Your task to perform on an android device: Add "dell xps" to the cart on newegg.com, then select checkout. Image 0: 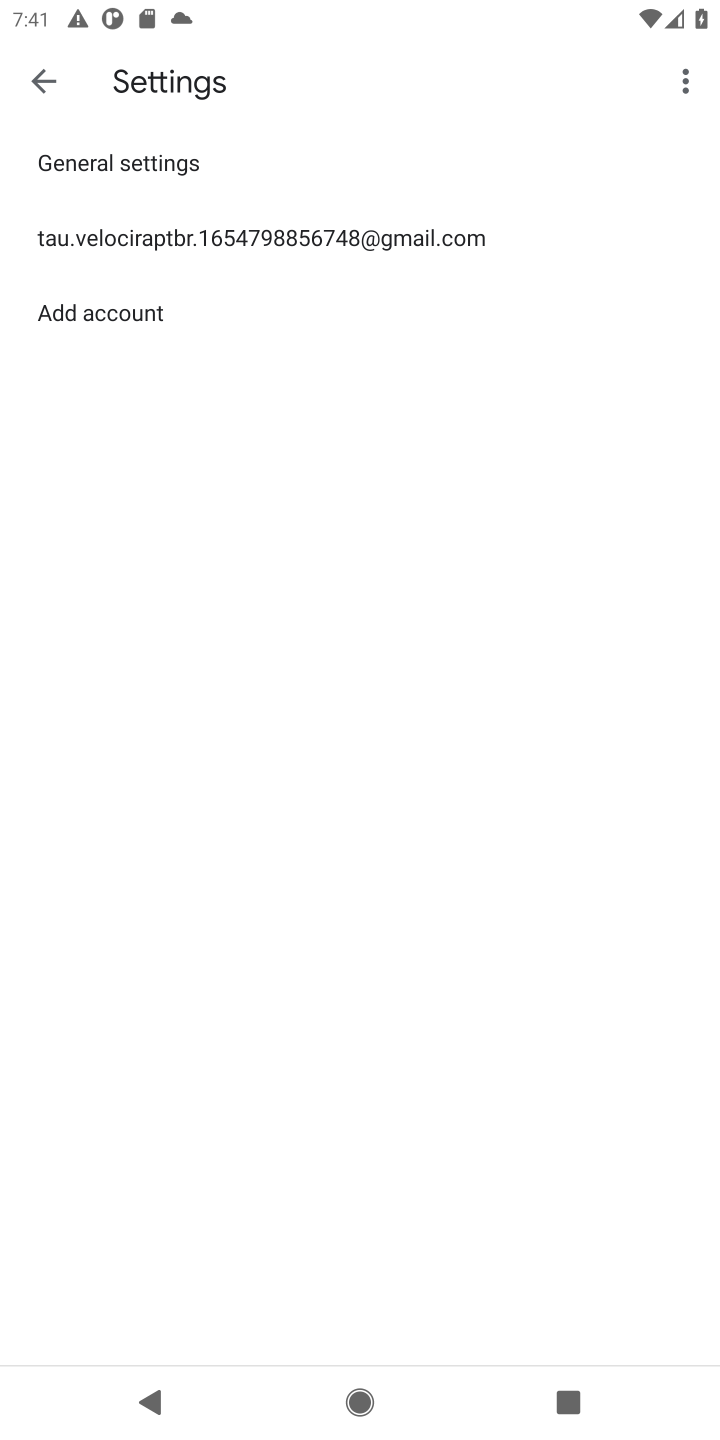
Step 0: press home button
Your task to perform on an android device: Add "dell xps" to the cart on newegg.com, then select checkout. Image 1: 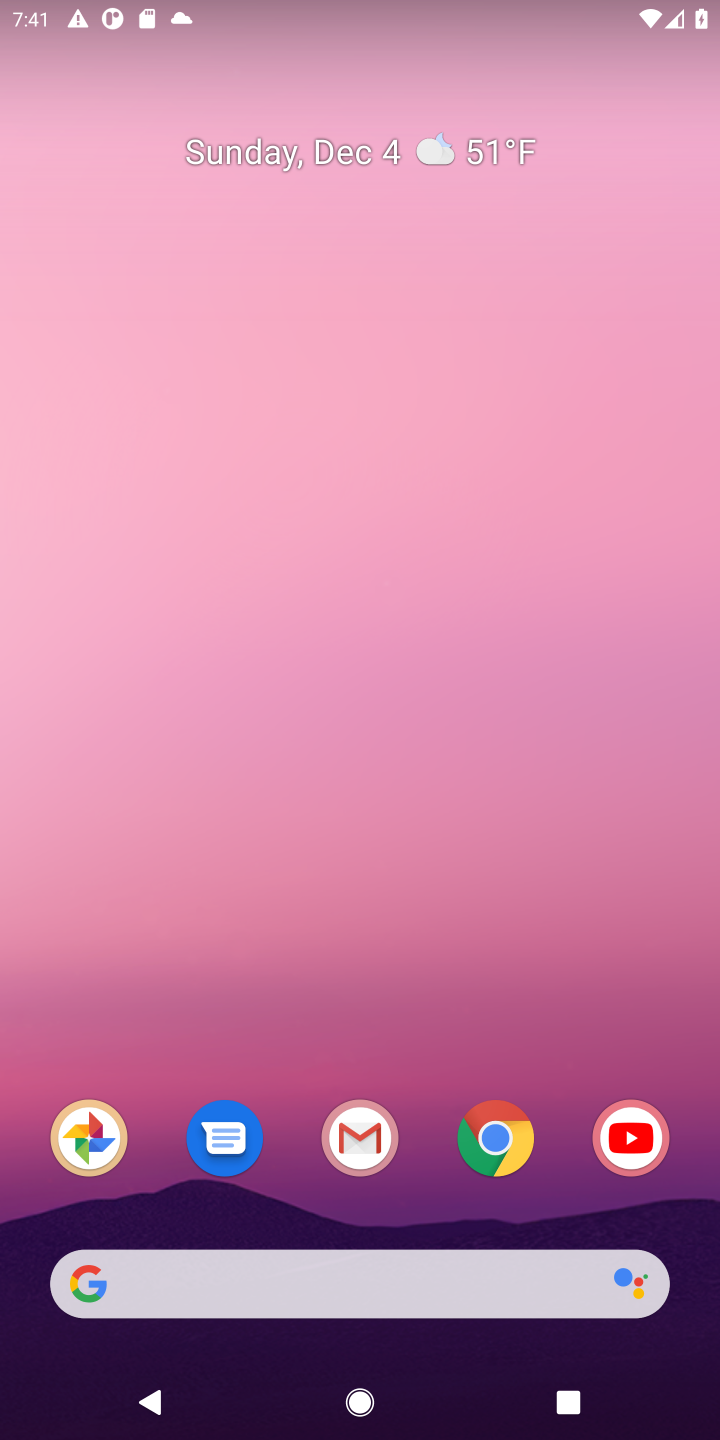
Step 1: click (514, 1123)
Your task to perform on an android device: Add "dell xps" to the cart on newegg.com, then select checkout. Image 2: 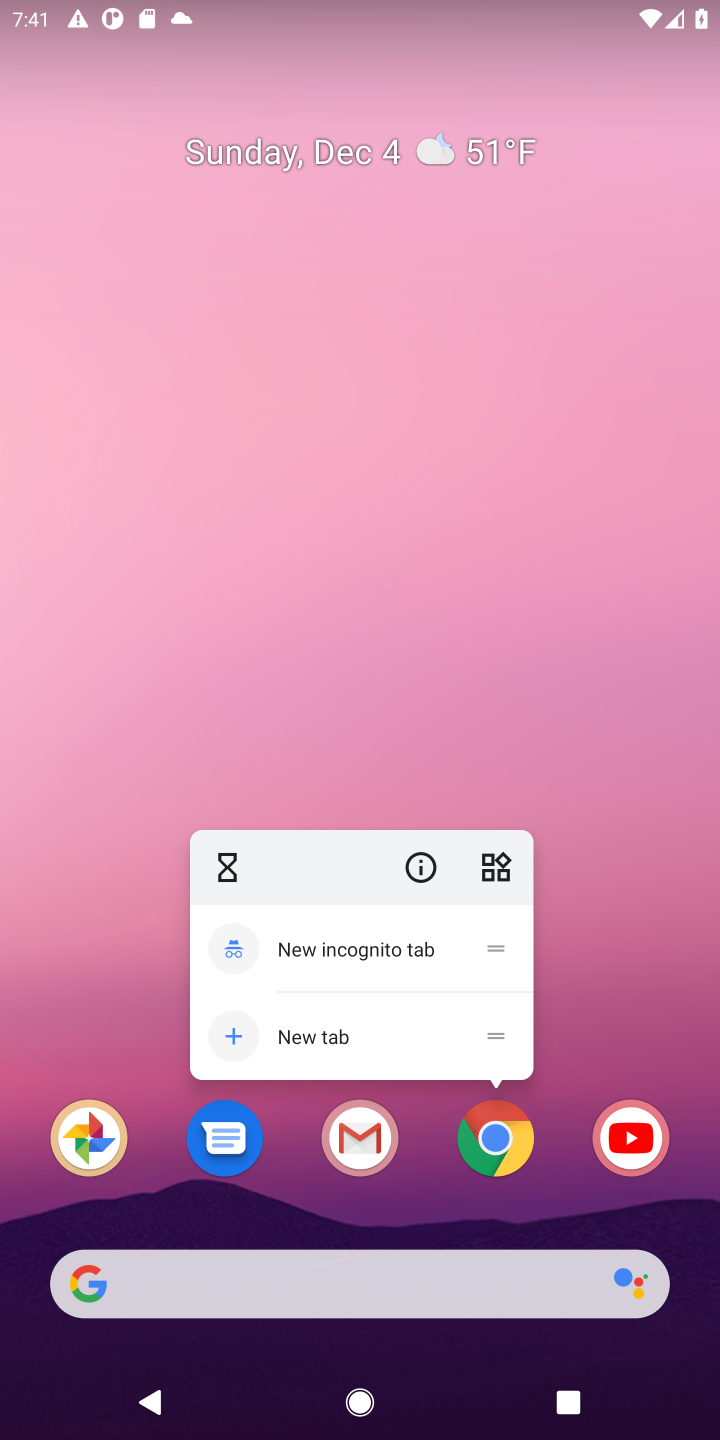
Step 2: click (481, 1154)
Your task to perform on an android device: Add "dell xps" to the cart on newegg.com, then select checkout. Image 3: 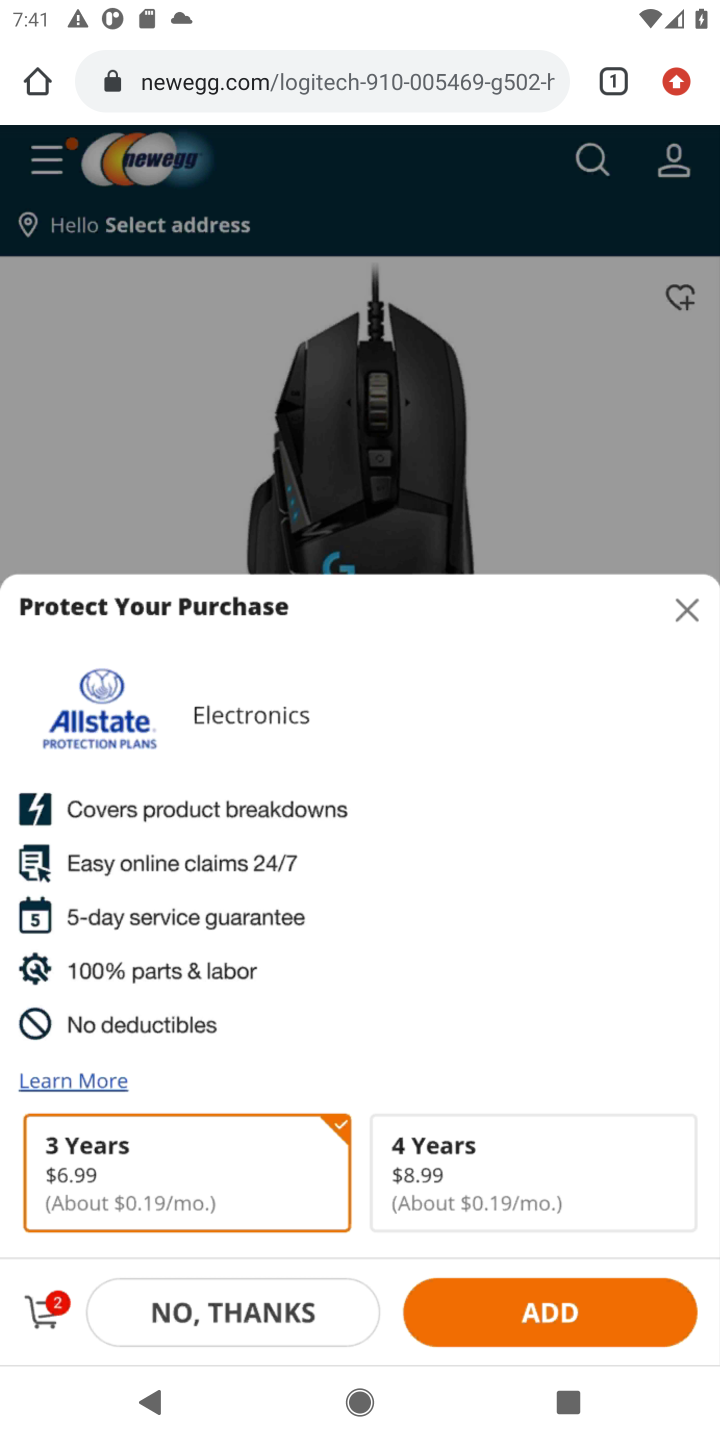
Step 3: click (687, 605)
Your task to perform on an android device: Add "dell xps" to the cart on newegg.com, then select checkout. Image 4: 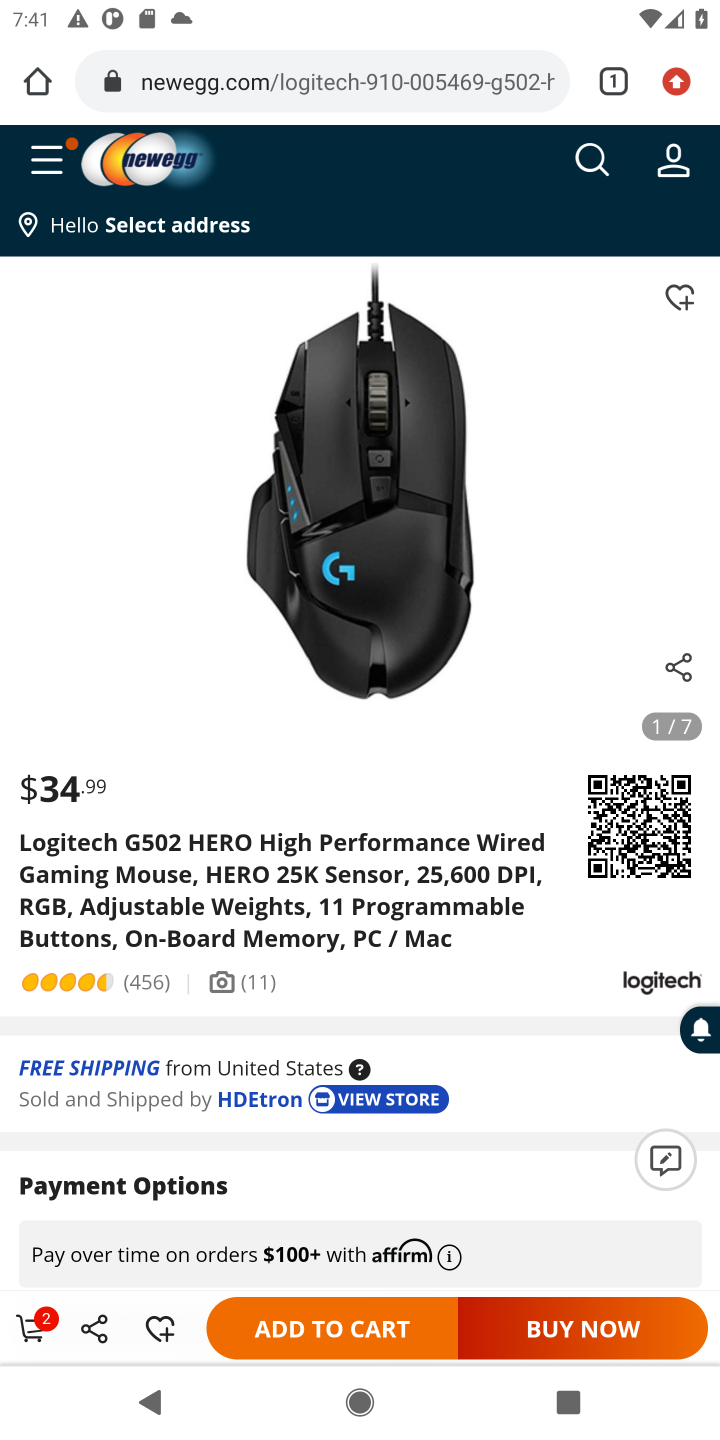
Step 4: click (604, 168)
Your task to perform on an android device: Add "dell xps" to the cart on newegg.com, then select checkout. Image 5: 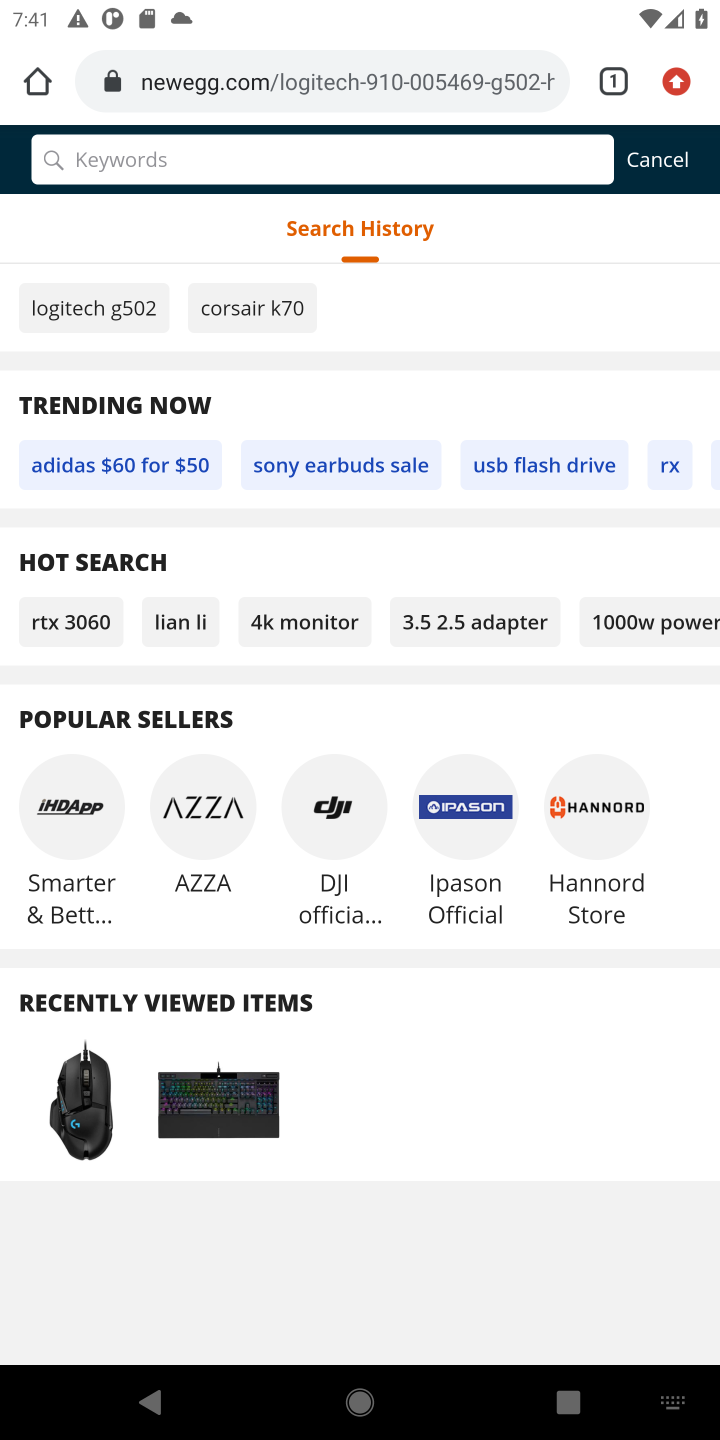
Step 5: type "dell xps"
Your task to perform on an android device: Add "dell xps" to the cart on newegg.com, then select checkout. Image 6: 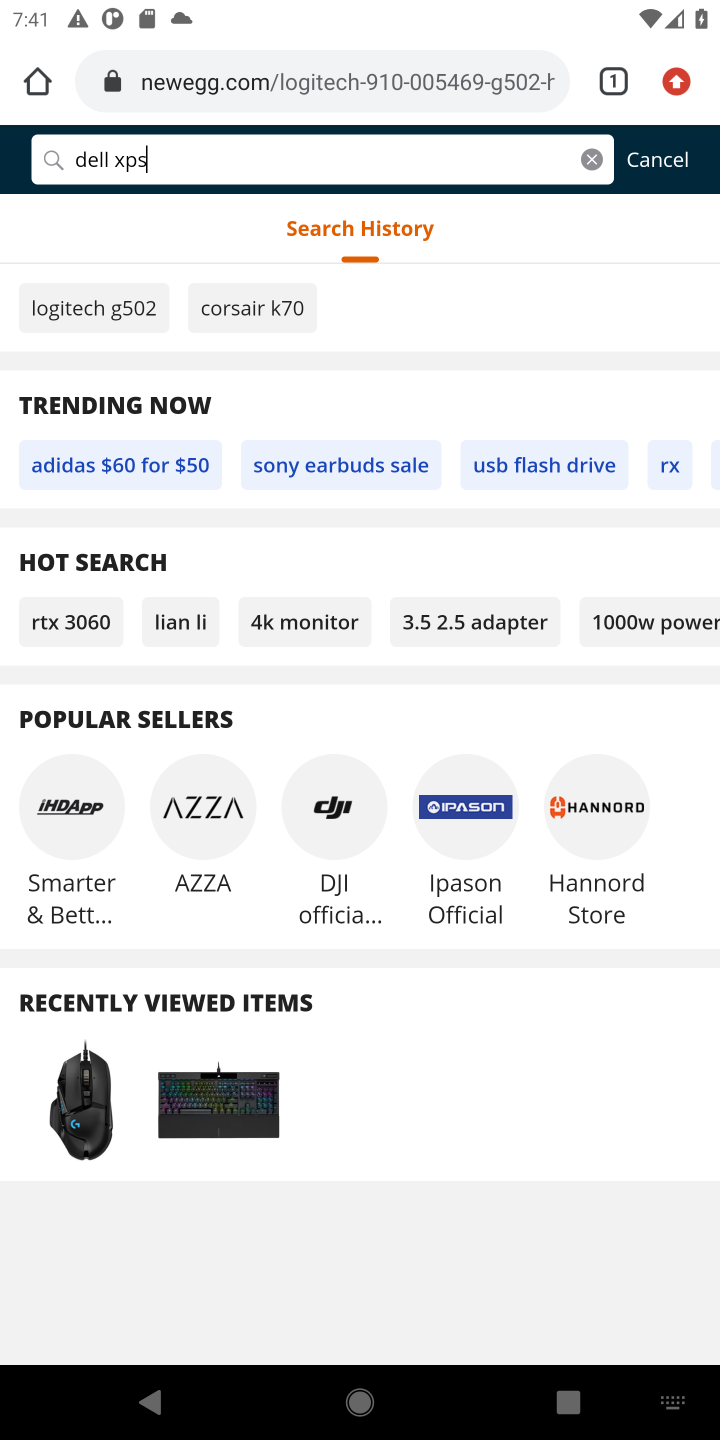
Step 6: press enter
Your task to perform on an android device: Add "dell xps" to the cart on newegg.com, then select checkout. Image 7: 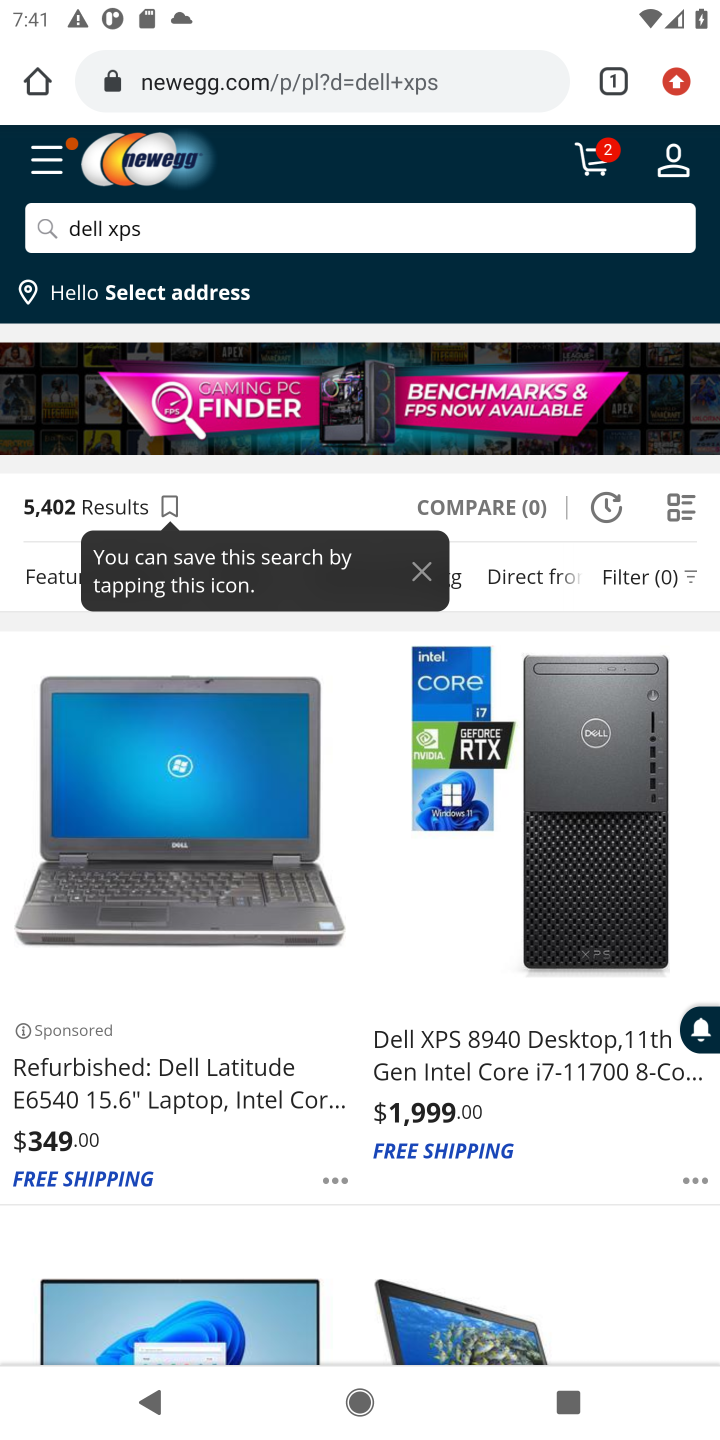
Step 7: click (563, 809)
Your task to perform on an android device: Add "dell xps" to the cart on newegg.com, then select checkout. Image 8: 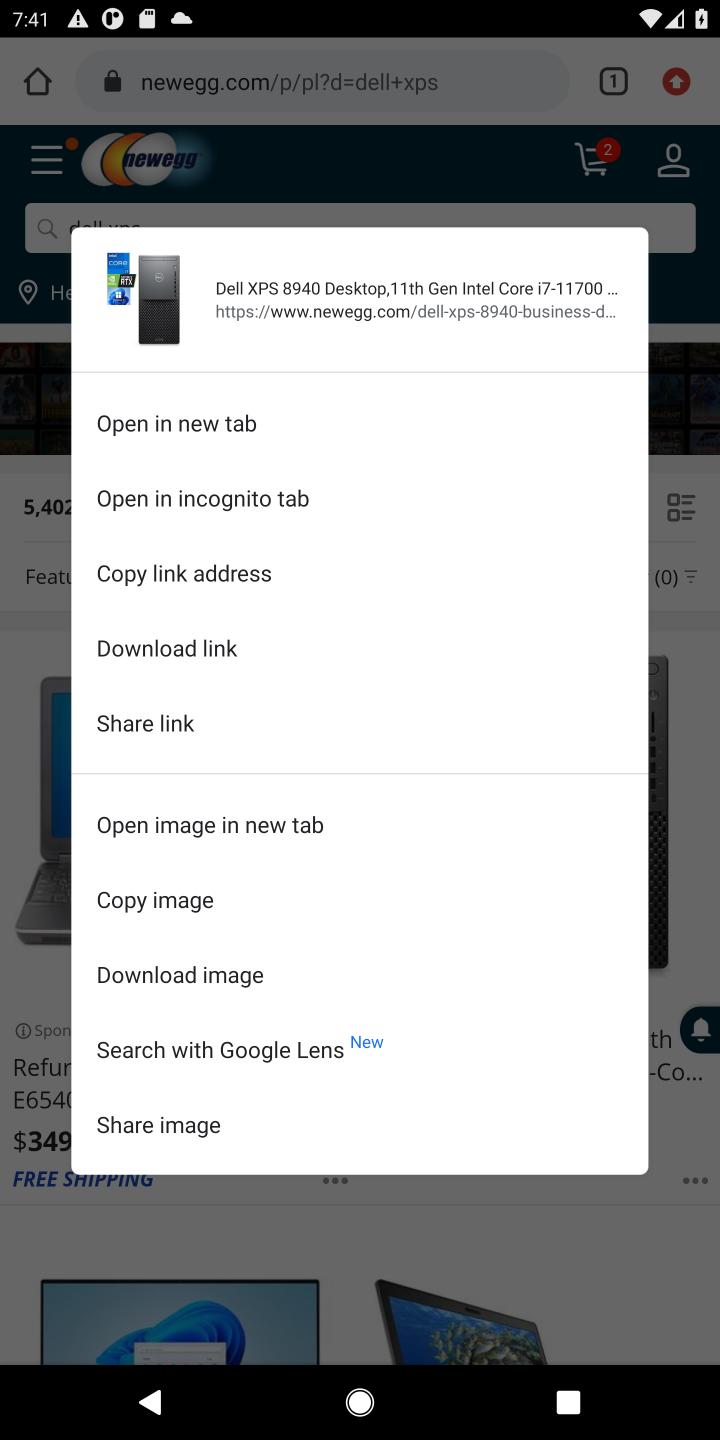
Step 8: click (686, 711)
Your task to perform on an android device: Add "dell xps" to the cart on newegg.com, then select checkout. Image 9: 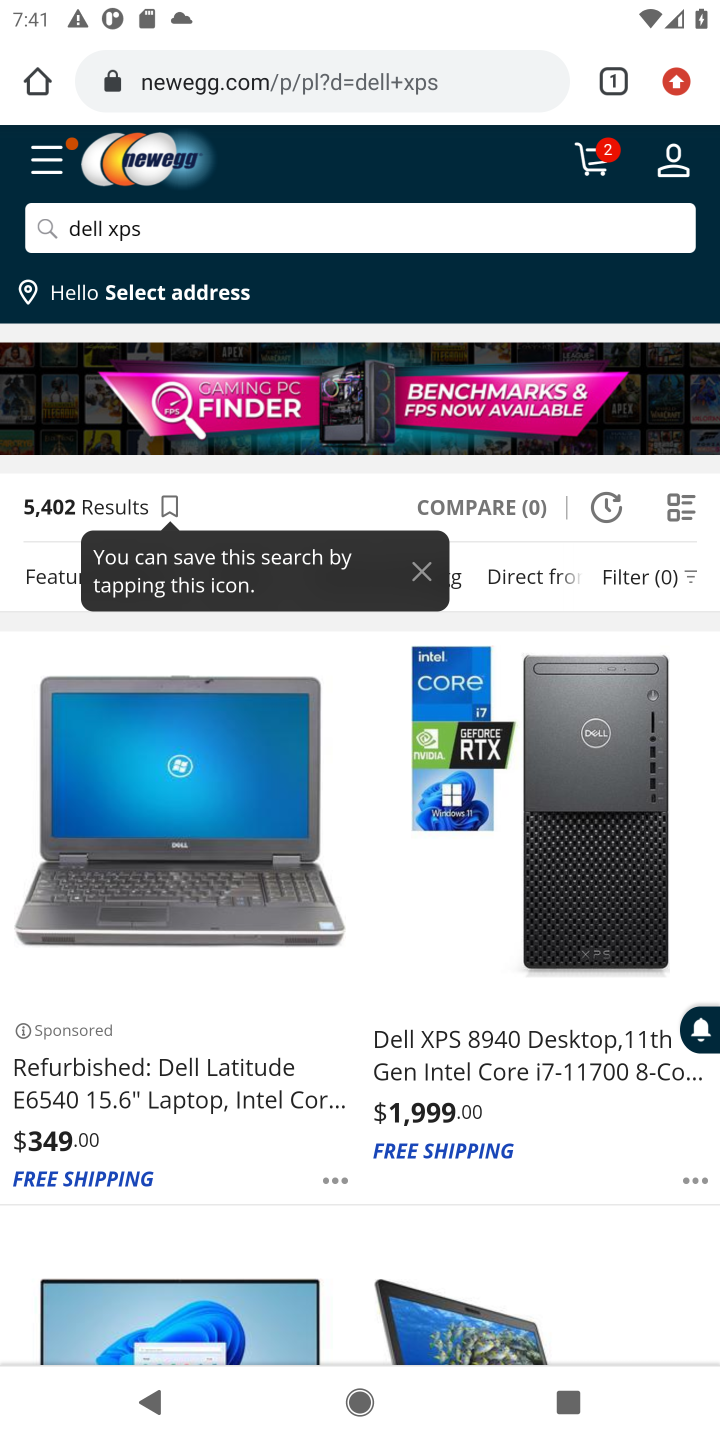
Step 9: click (531, 1041)
Your task to perform on an android device: Add "dell xps" to the cart on newegg.com, then select checkout. Image 10: 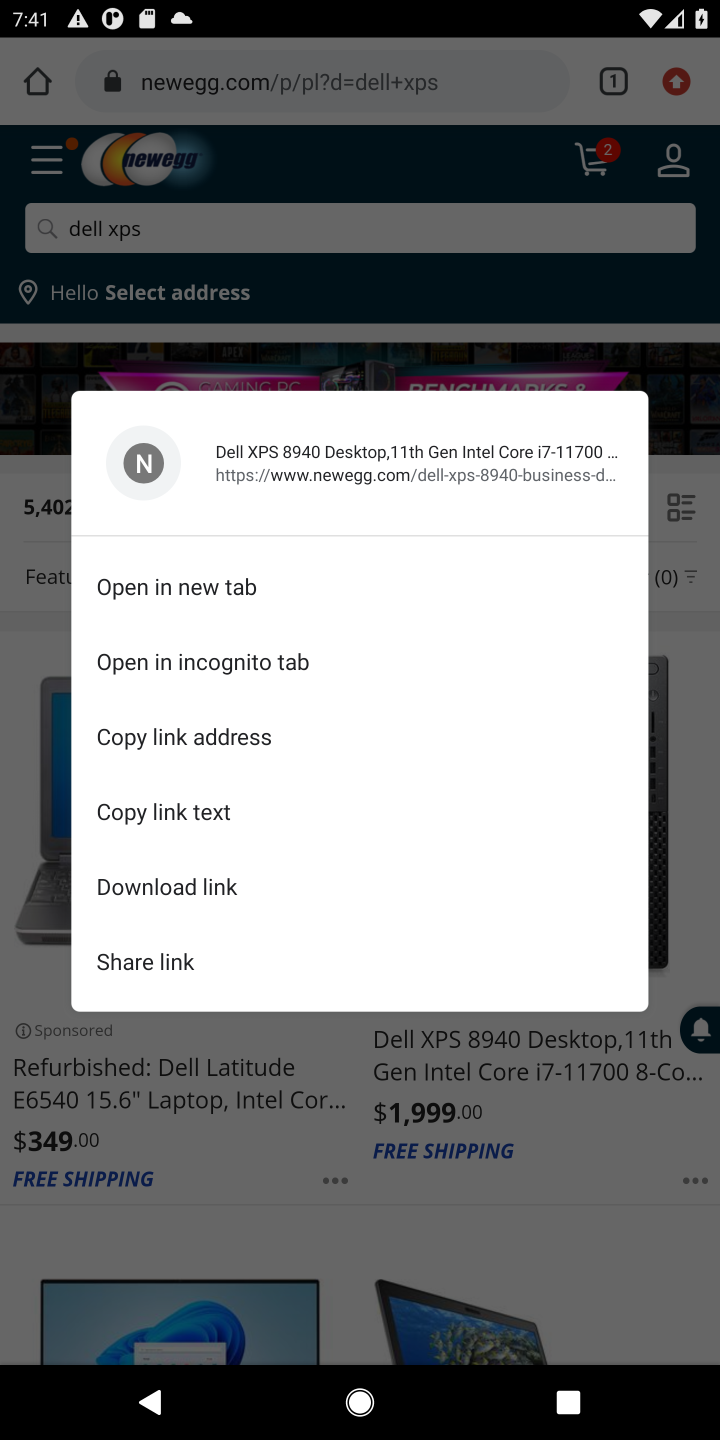
Step 10: click (531, 1041)
Your task to perform on an android device: Add "dell xps" to the cart on newegg.com, then select checkout. Image 11: 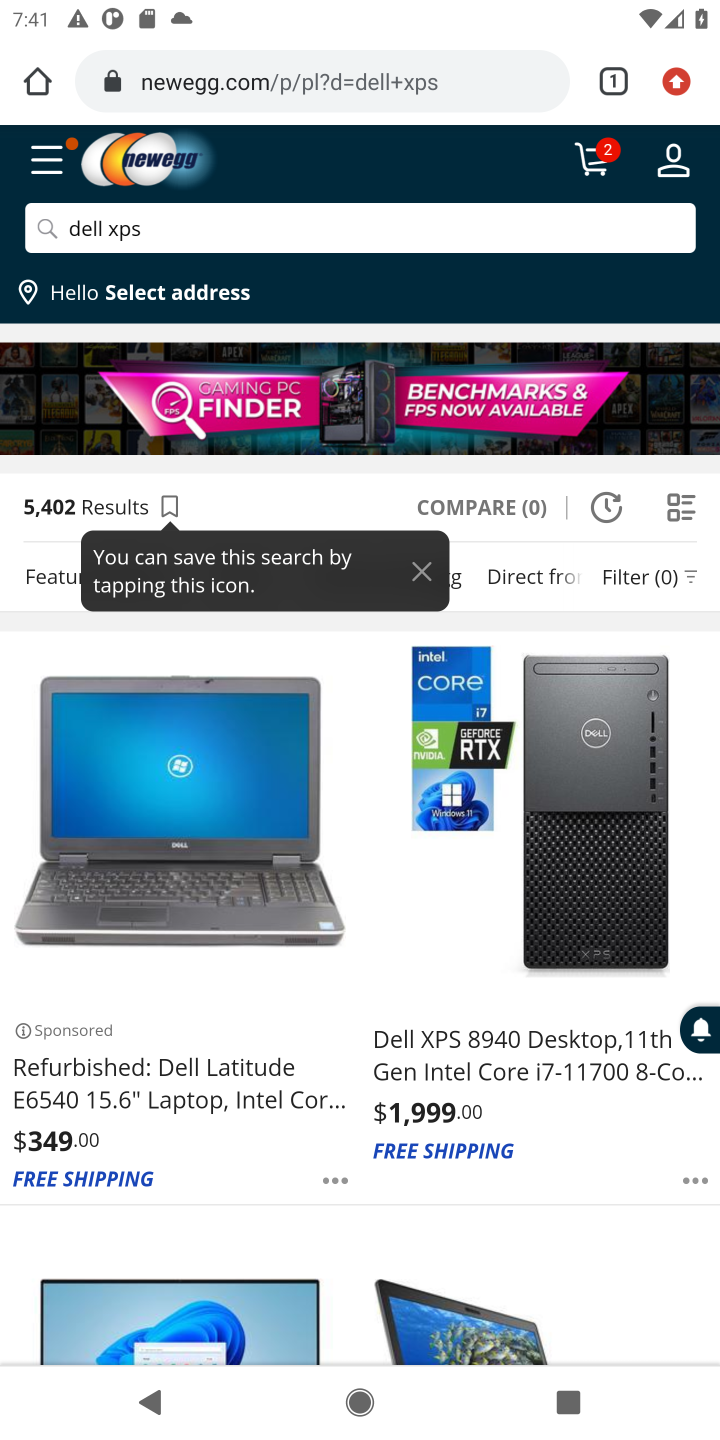
Step 11: click (542, 806)
Your task to perform on an android device: Add "dell xps" to the cart on newegg.com, then select checkout. Image 12: 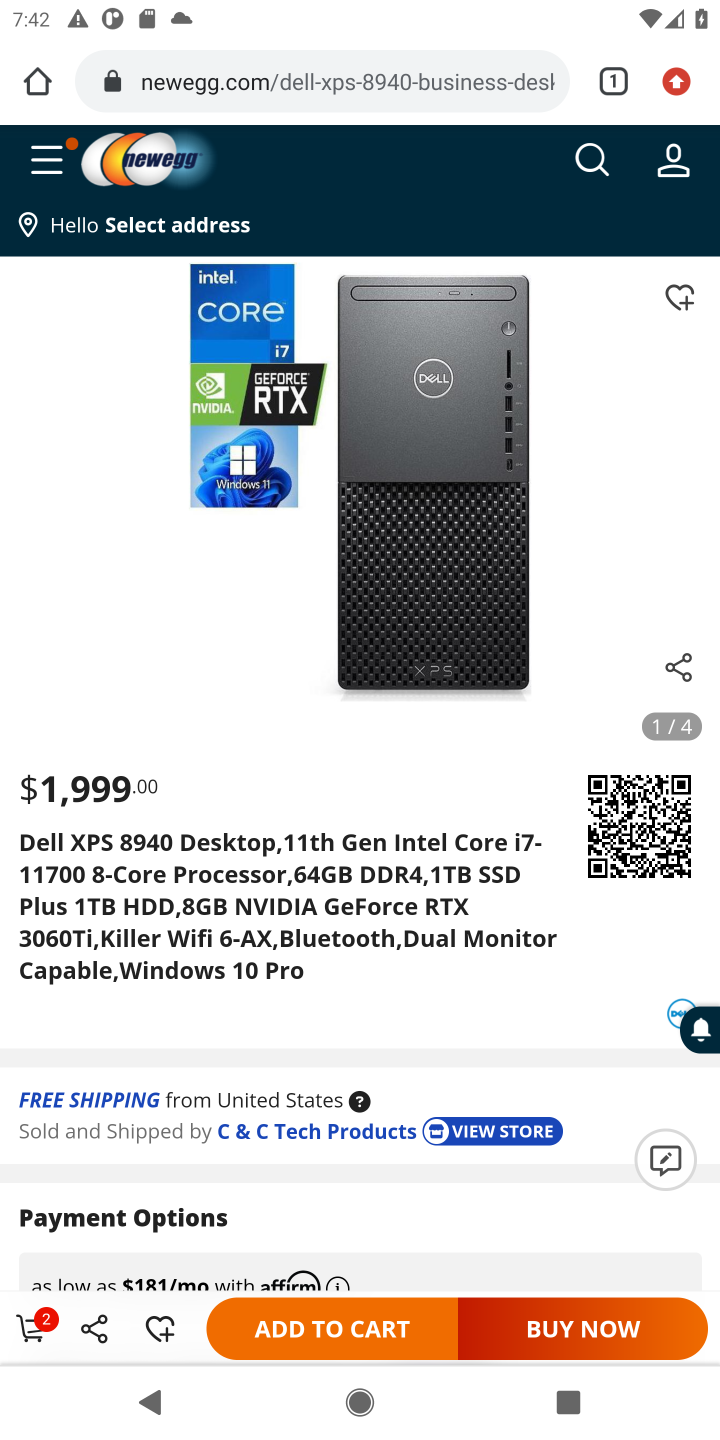
Step 12: click (324, 1328)
Your task to perform on an android device: Add "dell xps" to the cart on newegg.com, then select checkout. Image 13: 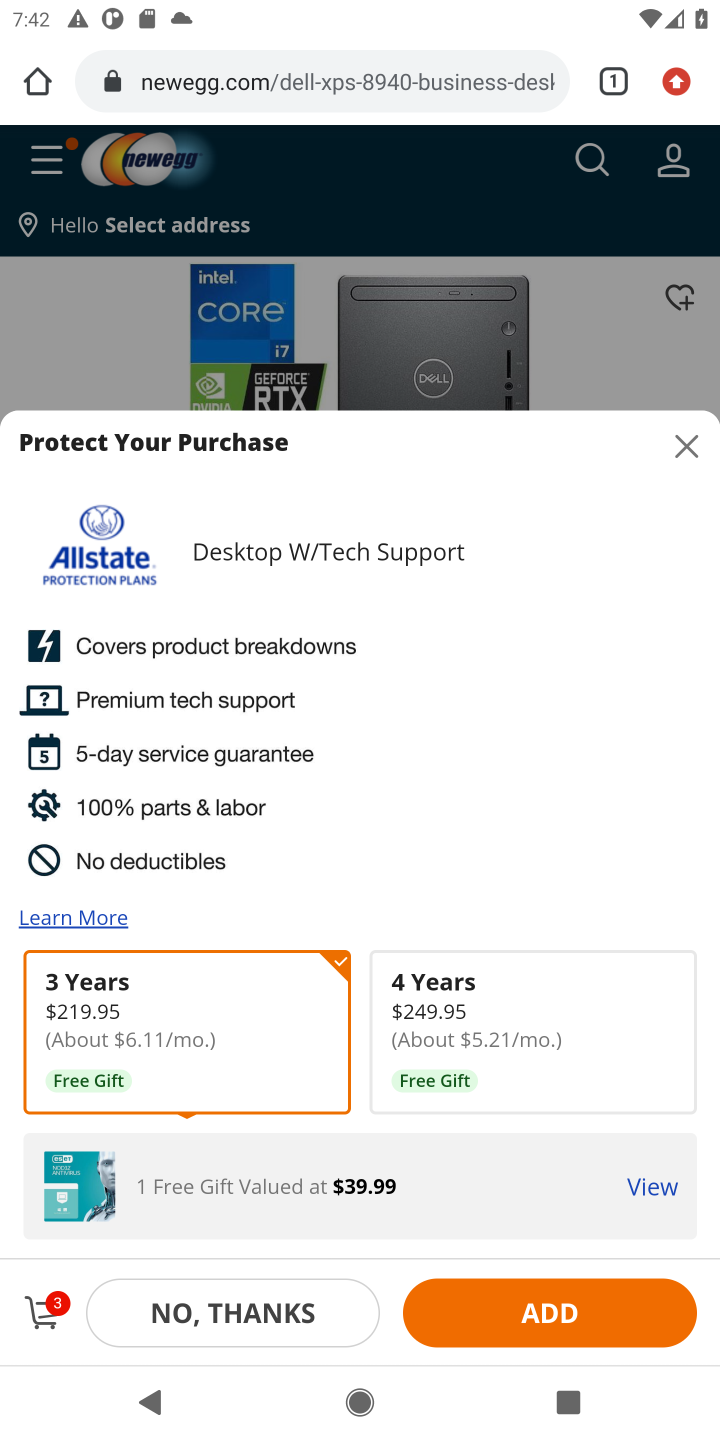
Step 13: click (42, 1323)
Your task to perform on an android device: Add "dell xps" to the cart on newegg.com, then select checkout. Image 14: 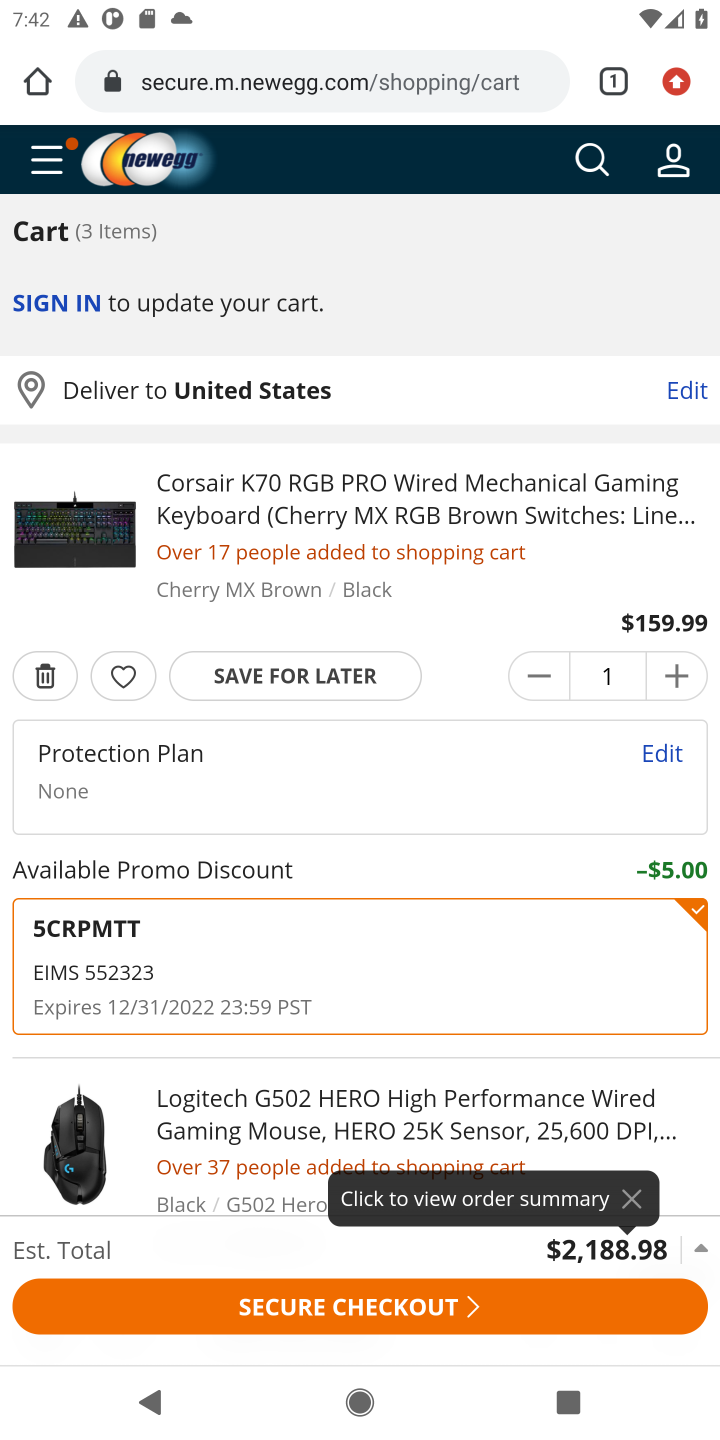
Step 14: click (409, 1294)
Your task to perform on an android device: Add "dell xps" to the cart on newegg.com, then select checkout. Image 15: 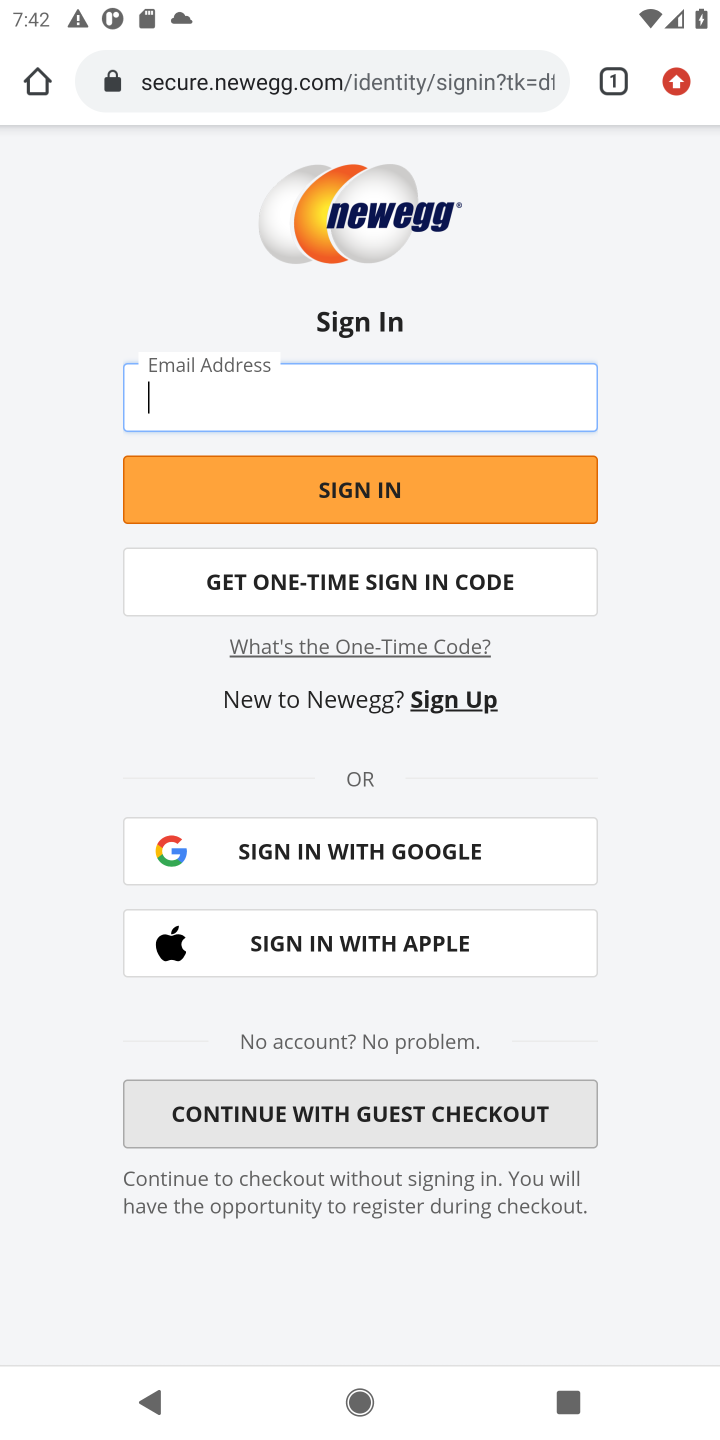
Step 15: task complete